Your task to perform on an android device: Open my contact list Image 0: 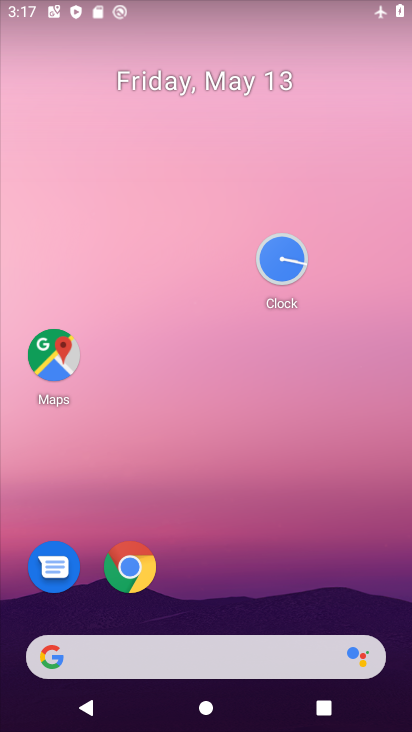
Step 0: drag from (270, 558) to (278, 86)
Your task to perform on an android device: Open my contact list Image 1: 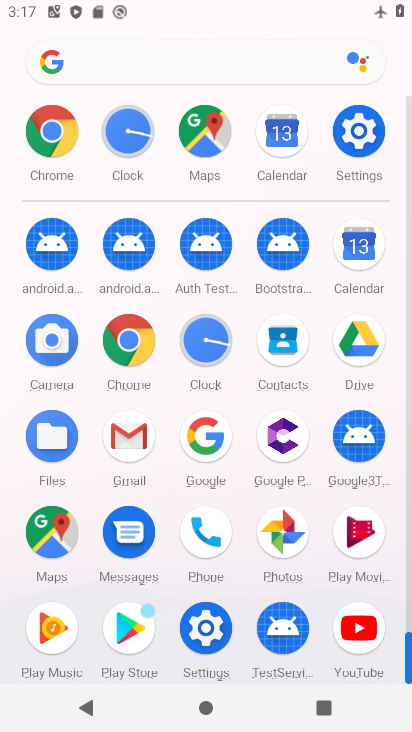
Step 1: click (289, 346)
Your task to perform on an android device: Open my contact list Image 2: 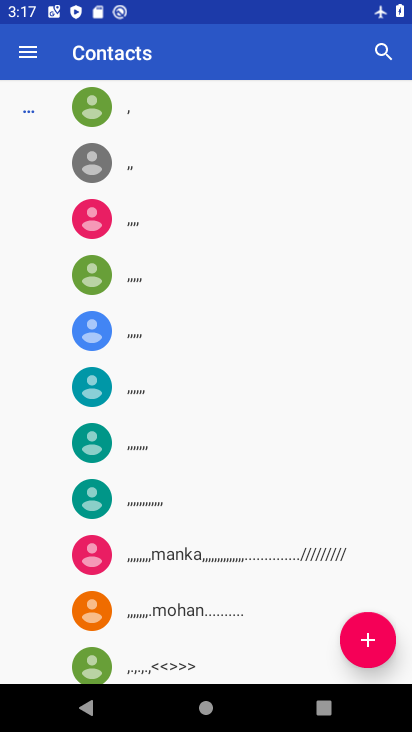
Step 2: task complete